Your task to perform on an android device: Go to display settings Image 0: 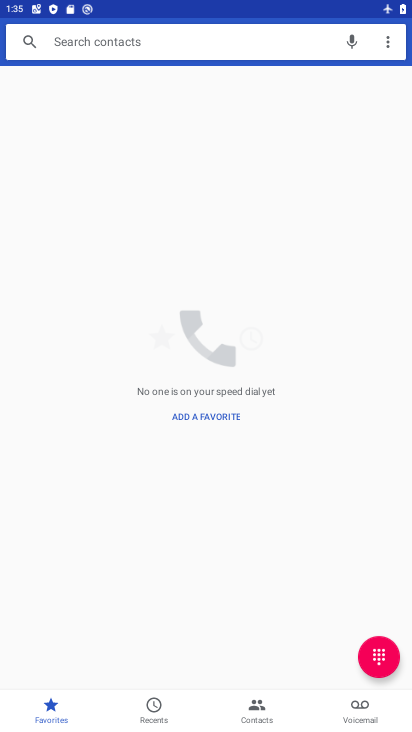
Step 0: press home button
Your task to perform on an android device: Go to display settings Image 1: 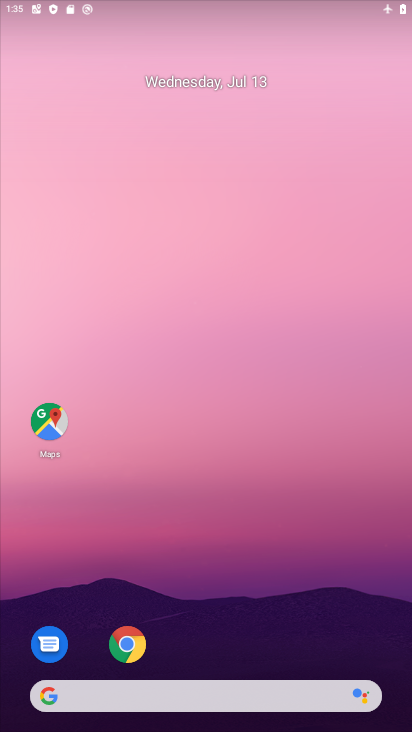
Step 1: drag from (297, 517) to (254, 66)
Your task to perform on an android device: Go to display settings Image 2: 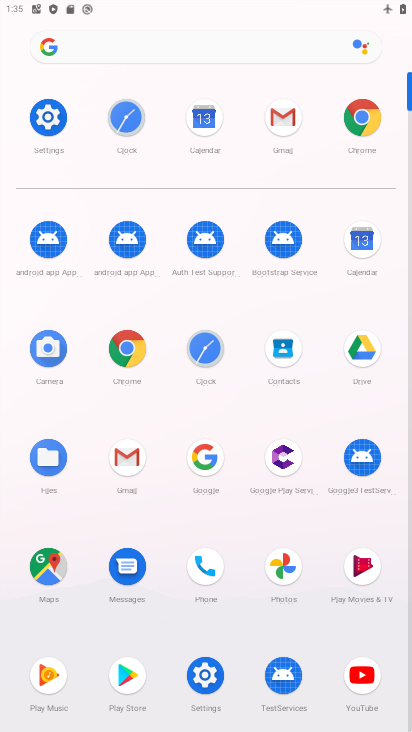
Step 2: click (51, 108)
Your task to perform on an android device: Go to display settings Image 3: 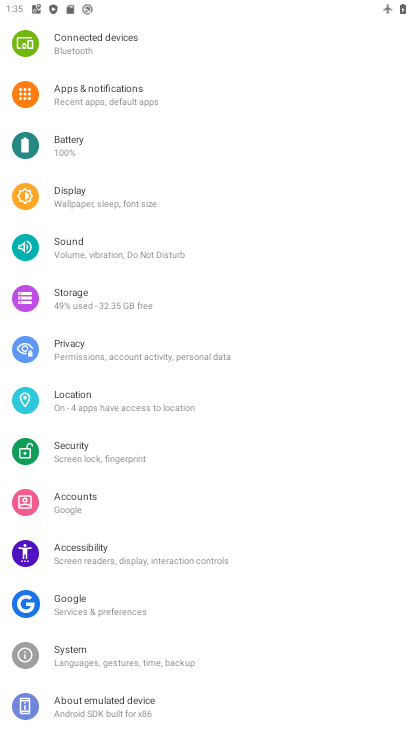
Step 3: drag from (272, 129) to (255, 504)
Your task to perform on an android device: Go to display settings Image 4: 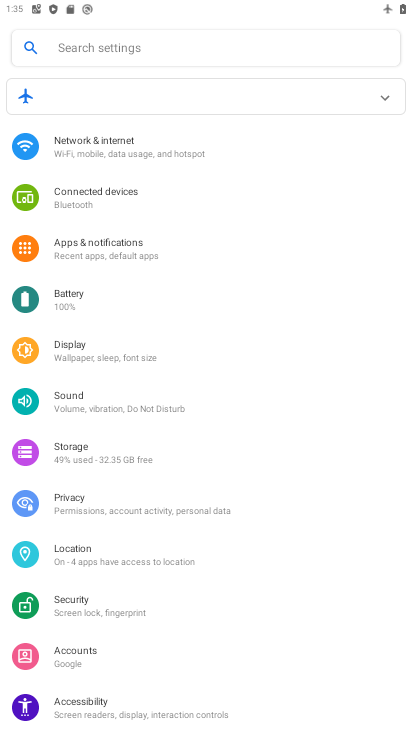
Step 4: click (98, 343)
Your task to perform on an android device: Go to display settings Image 5: 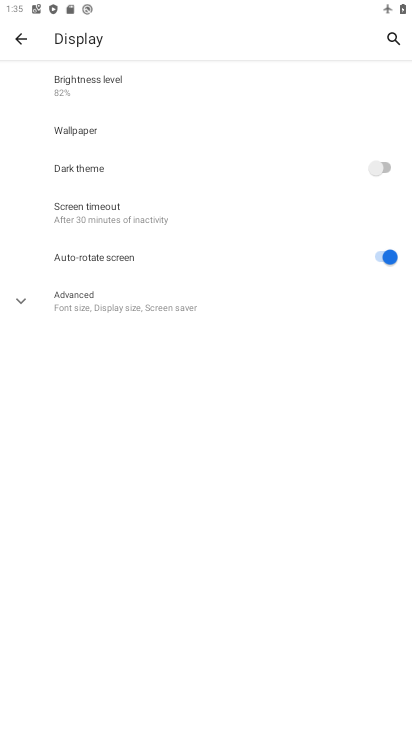
Step 5: click (138, 307)
Your task to perform on an android device: Go to display settings Image 6: 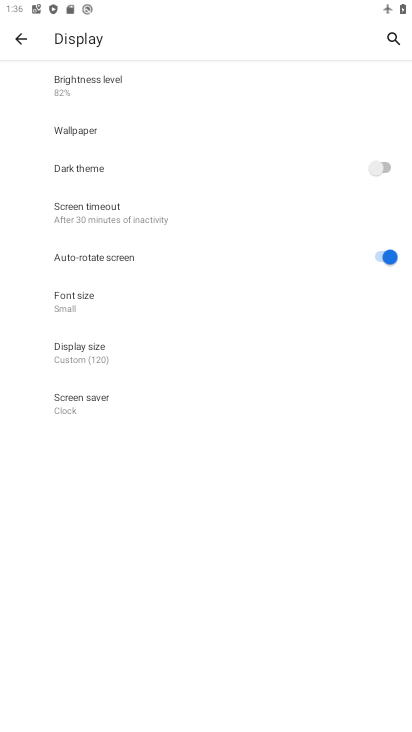
Step 6: task complete